Your task to perform on an android device: allow notifications from all sites in the chrome app Image 0: 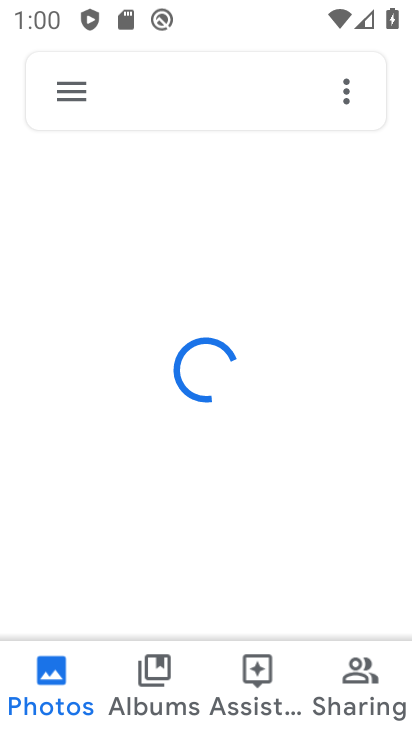
Step 0: press home button
Your task to perform on an android device: allow notifications from all sites in the chrome app Image 1: 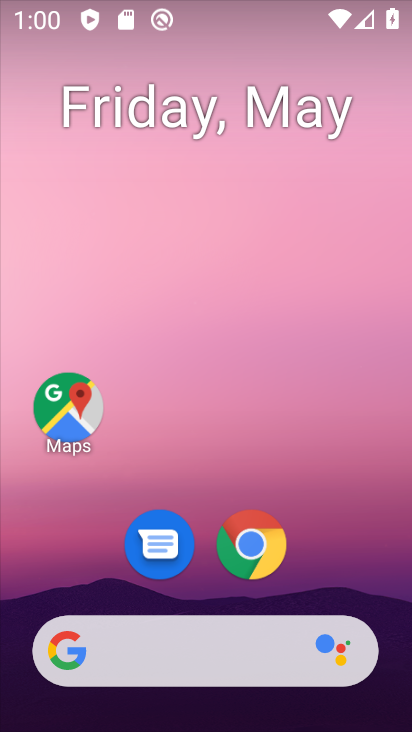
Step 1: click (252, 541)
Your task to perform on an android device: allow notifications from all sites in the chrome app Image 2: 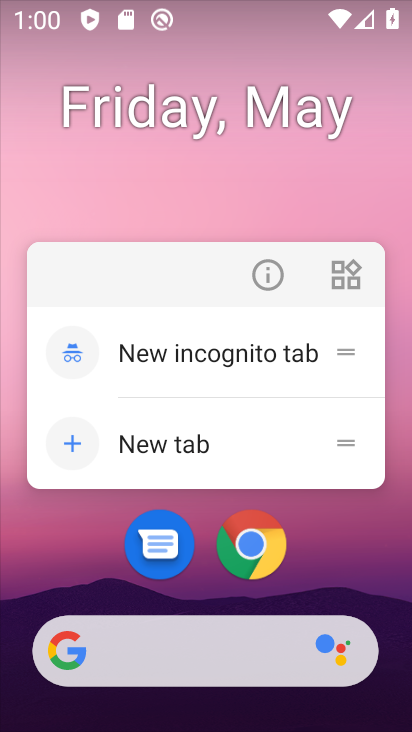
Step 2: click (277, 272)
Your task to perform on an android device: allow notifications from all sites in the chrome app Image 3: 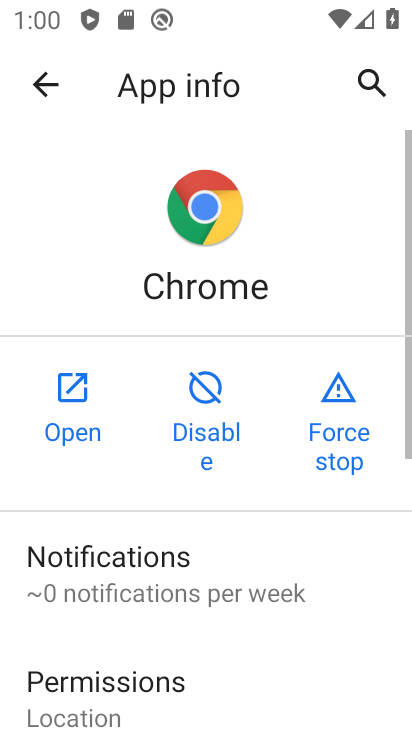
Step 3: click (76, 384)
Your task to perform on an android device: allow notifications from all sites in the chrome app Image 4: 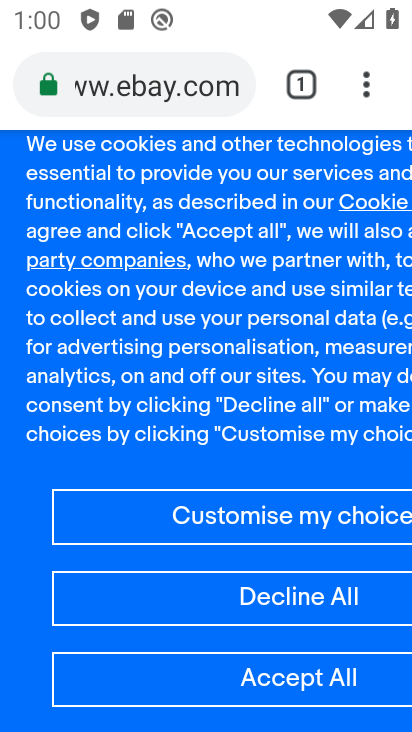
Step 4: click (372, 77)
Your task to perform on an android device: allow notifications from all sites in the chrome app Image 5: 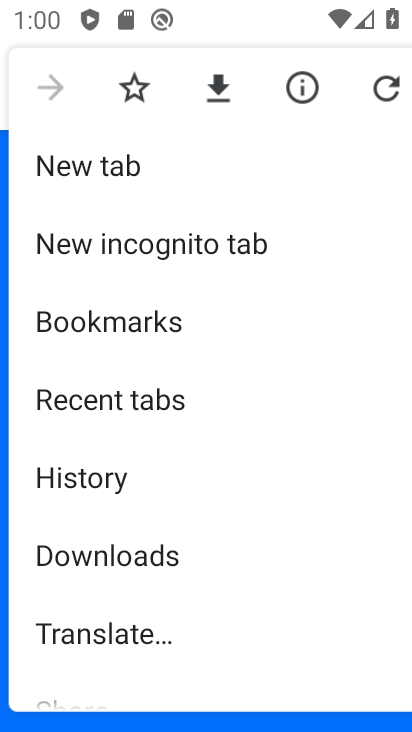
Step 5: click (364, 86)
Your task to perform on an android device: allow notifications from all sites in the chrome app Image 6: 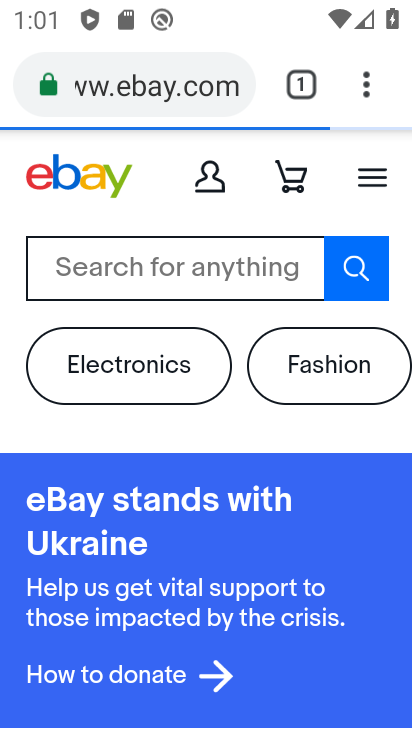
Step 6: click (365, 89)
Your task to perform on an android device: allow notifications from all sites in the chrome app Image 7: 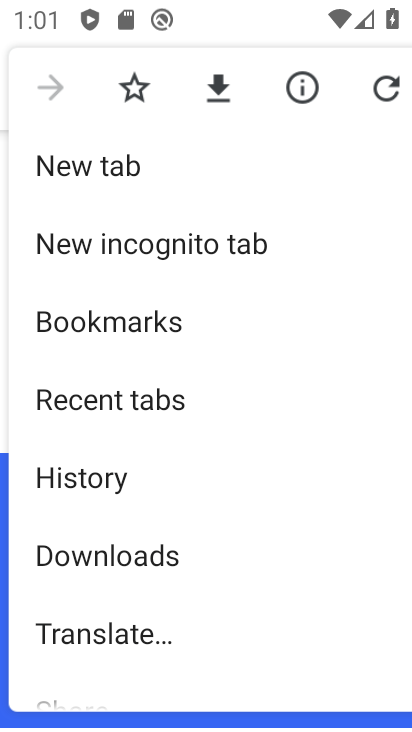
Step 7: drag from (145, 659) to (176, 236)
Your task to perform on an android device: allow notifications from all sites in the chrome app Image 8: 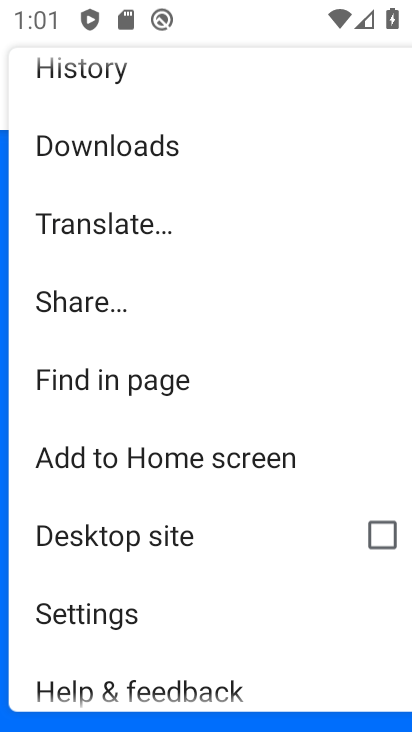
Step 8: click (161, 608)
Your task to perform on an android device: allow notifications from all sites in the chrome app Image 9: 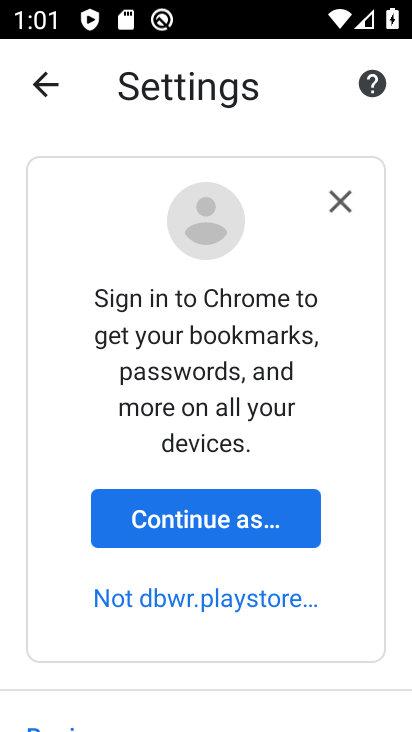
Step 9: click (342, 200)
Your task to perform on an android device: allow notifications from all sites in the chrome app Image 10: 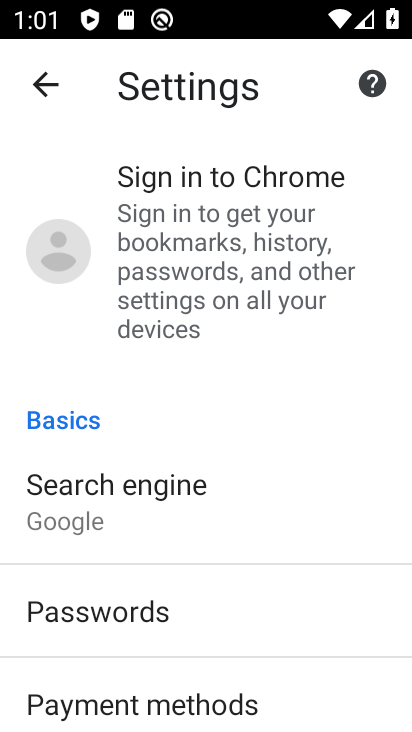
Step 10: drag from (213, 684) to (308, 354)
Your task to perform on an android device: allow notifications from all sites in the chrome app Image 11: 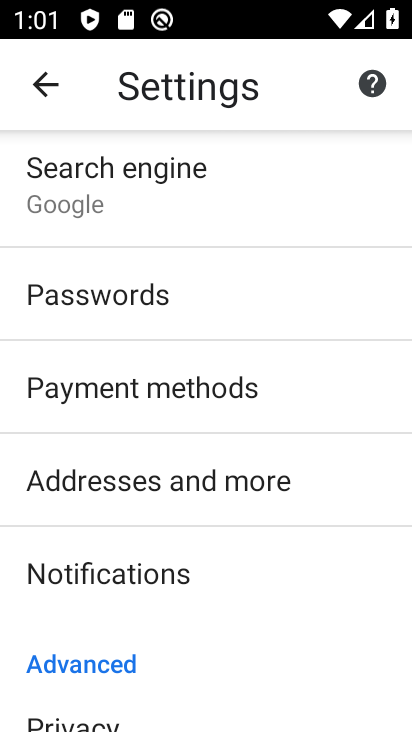
Step 11: drag from (175, 681) to (240, 303)
Your task to perform on an android device: allow notifications from all sites in the chrome app Image 12: 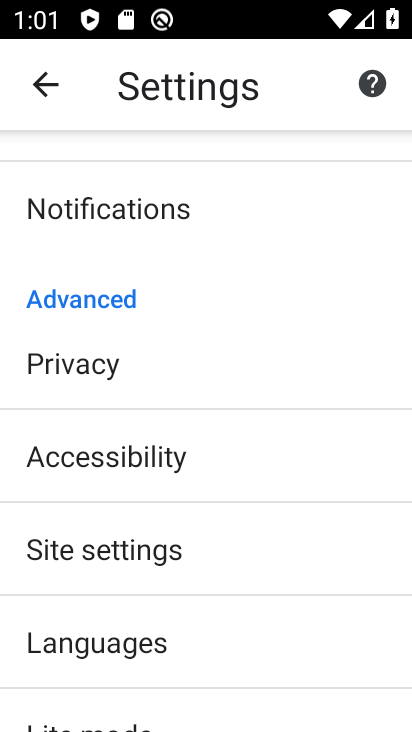
Step 12: click (137, 525)
Your task to perform on an android device: allow notifications from all sites in the chrome app Image 13: 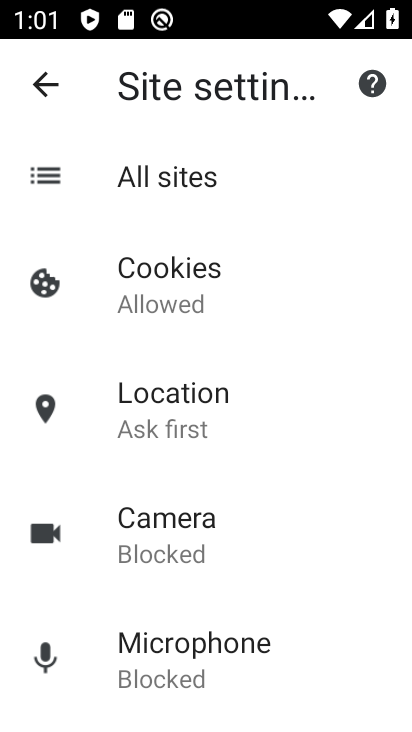
Step 13: drag from (166, 661) to (228, 318)
Your task to perform on an android device: allow notifications from all sites in the chrome app Image 14: 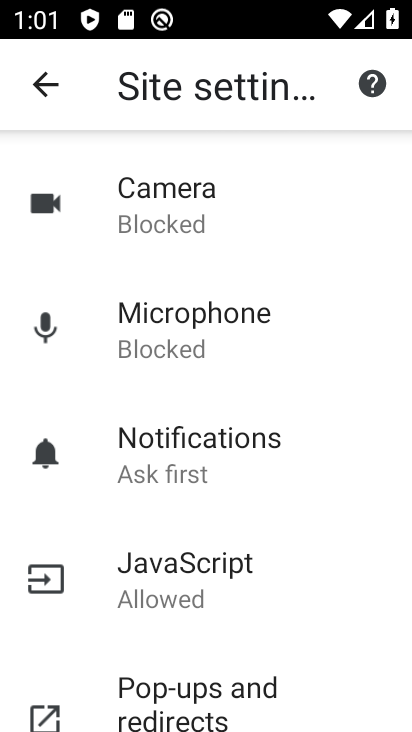
Step 14: click (165, 427)
Your task to perform on an android device: allow notifications from all sites in the chrome app Image 15: 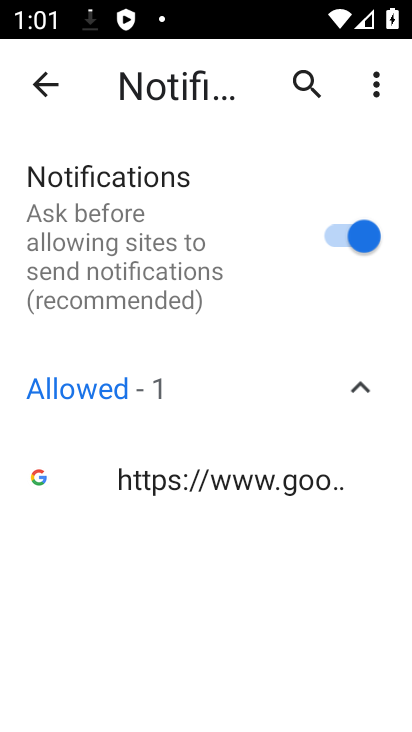
Step 15: task complete